Your task to perform on an android device: Open accessibility settings Image 0: 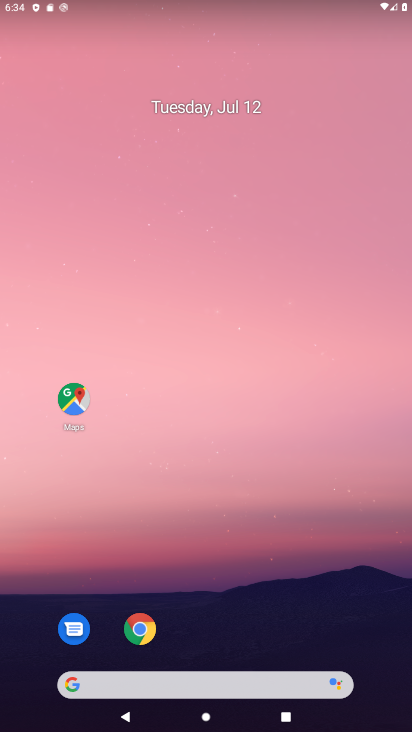
Step 0: drag from (244, 567) to (210, 105)
Your task to perform on an android device: Open accessibility settings Image 1: 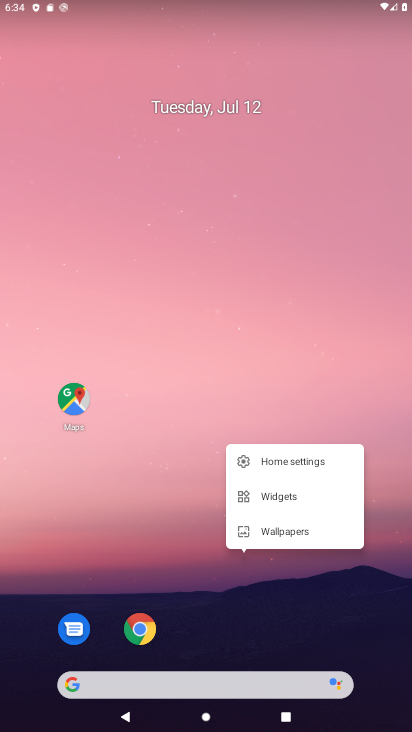
Step 1: click (163, 475)
Your task to perform on an android device: Open accessibility settings Image 2: 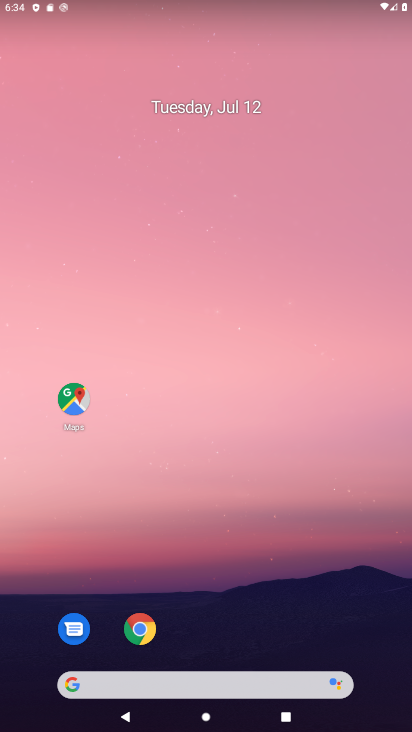
Step 2: drag from (252, 566) to (174, 42)
Your task to perform on an android device: Open accessibility settings Image 3: 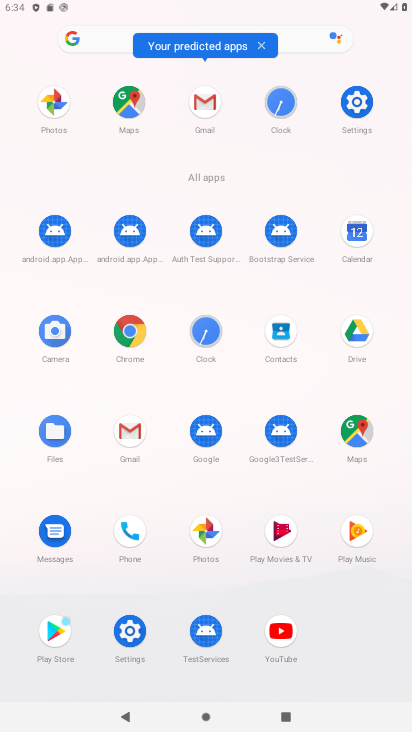
Step 3: click (364, 96)
Your task to perform on an android device: Open accessibility settings Image 4: 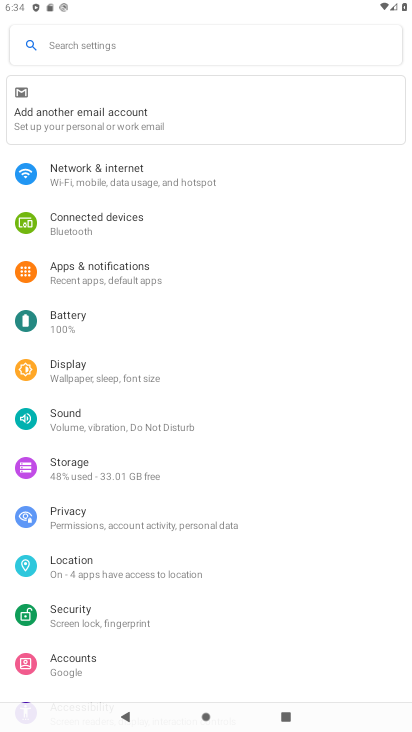
Step 4: drag from (225, 609) to (181, 332)
Your task to perform on an android device: Open accessibility settings Image 5: 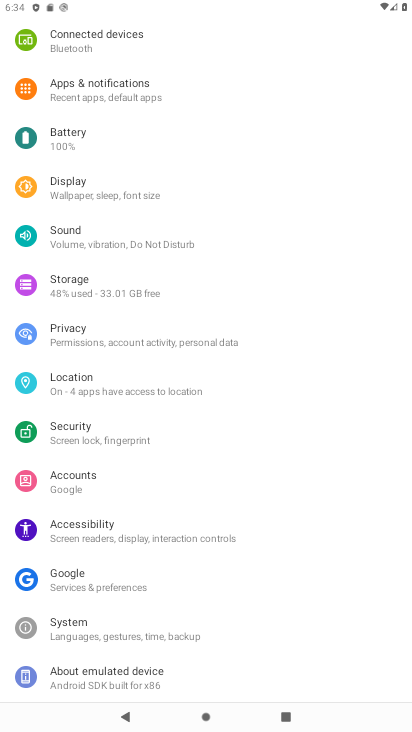
Step 5: click (89, 522)
Your task to perform on an android device: Open accessibility settings Image 6: 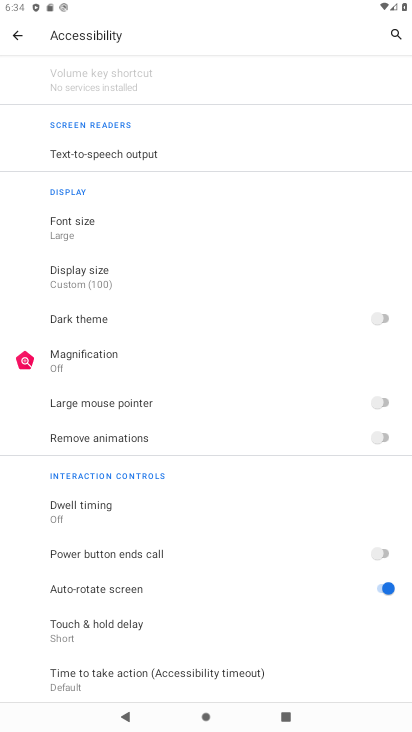
Step 6: task complete